Your task to perform on an android device: Show the shopping cart on target. Add "macbook pro 15 inch" to the cart on target, then select checkout. Image 0: 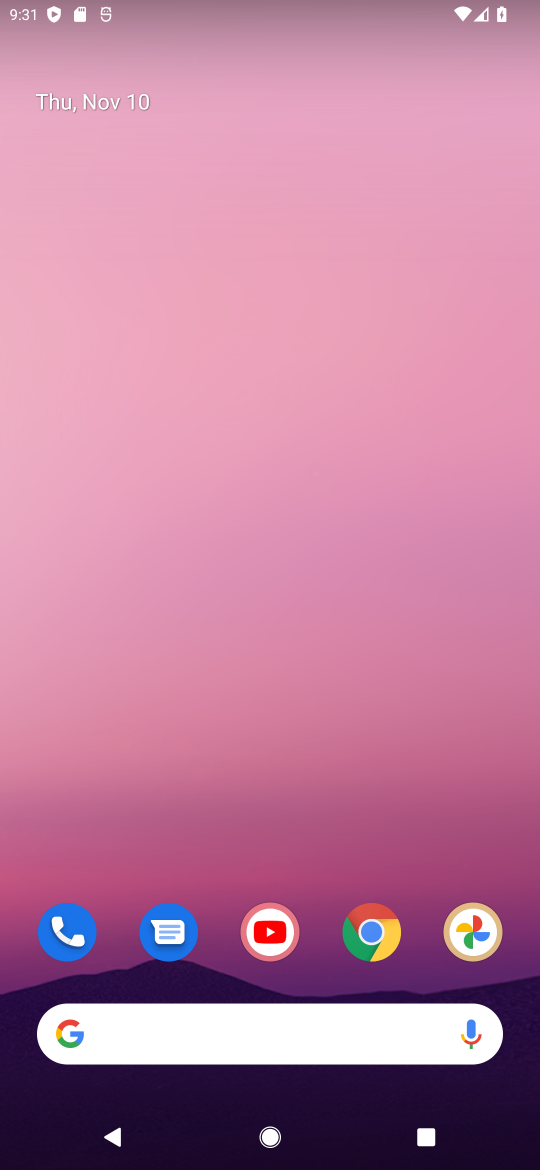
Step 0: click (358, 942)
Your task to perform on an android device: Show the shopping cart on target. Add "macbook pro 15 inch" to the cart on target, then select checkout. Image 1: 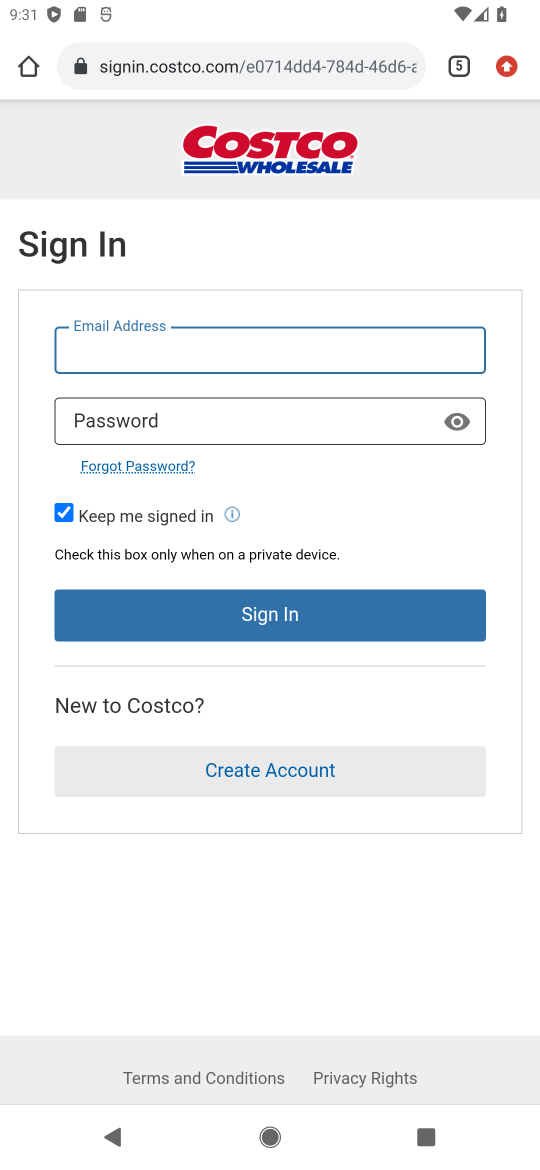
Step 1: click (457, 66)
Your task to perform on an android device: Show the shopping cart on target. Add "macbook pro 15 inch" to the cart on target, then select checkout. Image 2: 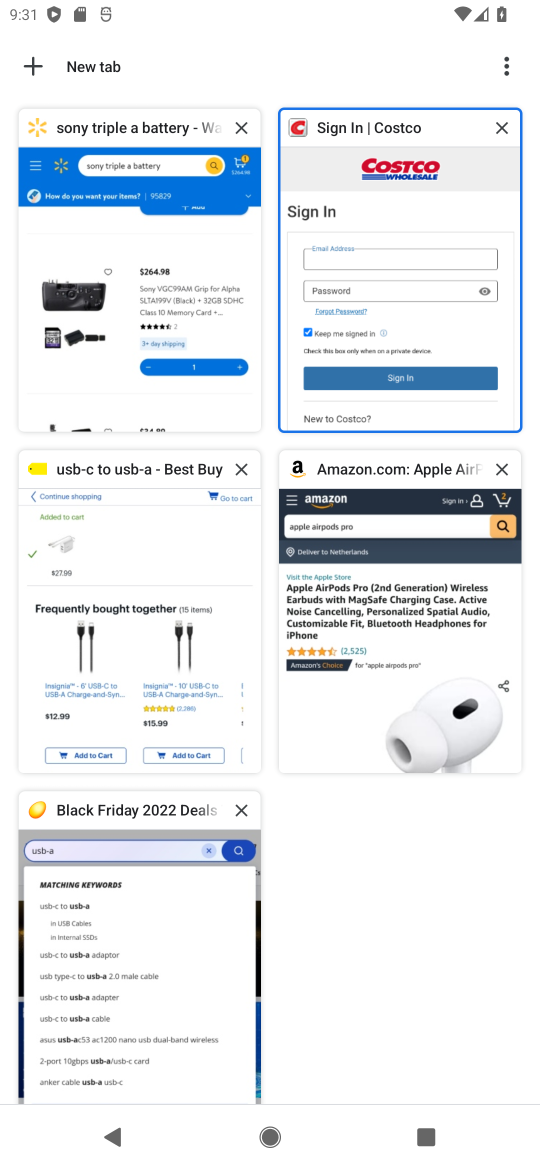
Step 2: click (457, 66)
Your task to perform on an android device: Show the shopping cart on target. Add "macbook pro 15 inch" to the cart on target, then select checkout. Image 3: 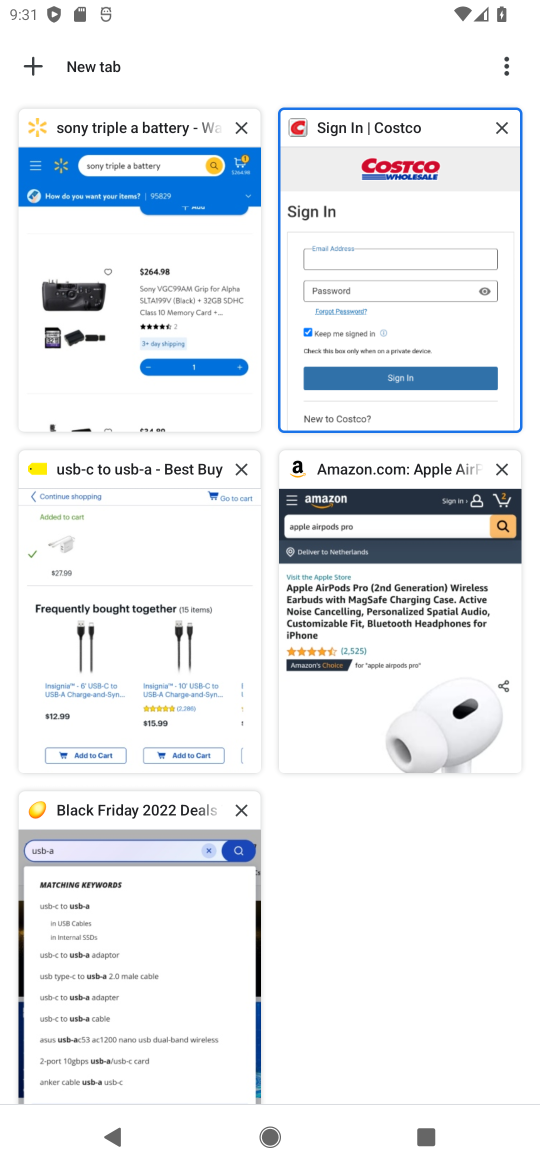
Step 3: click (26, 68)
Your task to perform on an android device: Show the shopping cart on target. Add "macbook pro 15 inch" to the cart on target, then select checkout. Image 4: 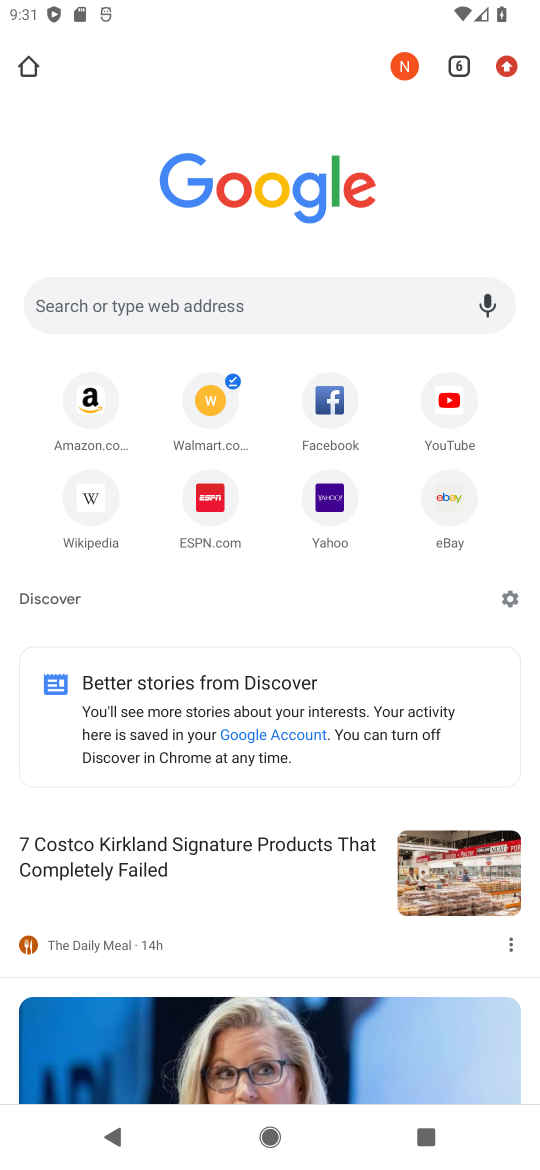
Step 4: click (143, 307)
Your task to perform on an android device: Show the shopping cart on target. Add "macbook pro 15 inch" to the cart on target, then select checkout. Image 5: 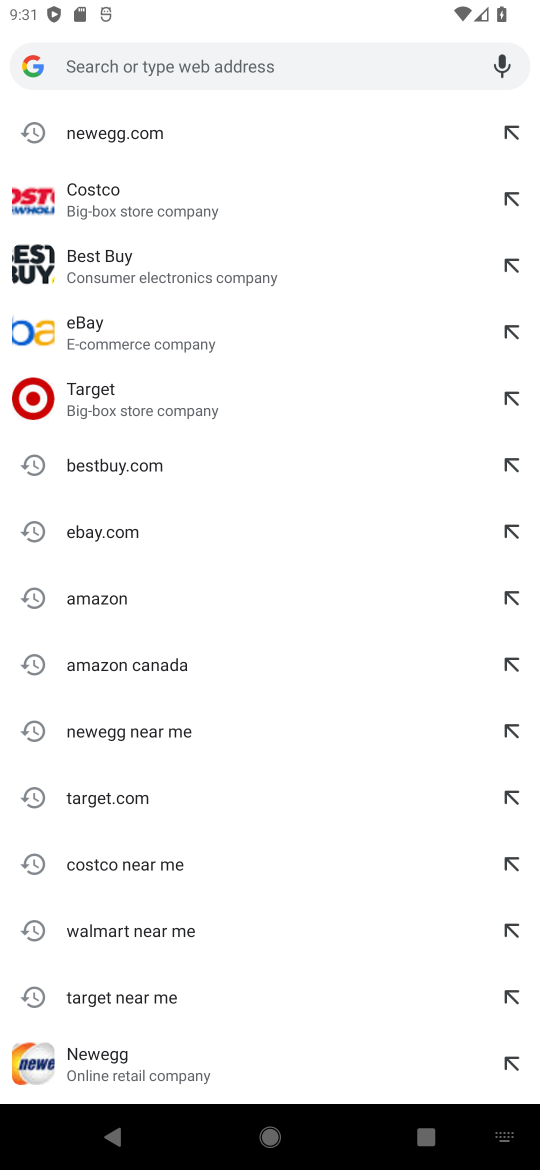
Step 5: click (120, 393)
Your task to perform on an android device: Show the shopping cart on target. Add "macbook pro 15 inch" to the cart on target, then select checkout. Image 6: 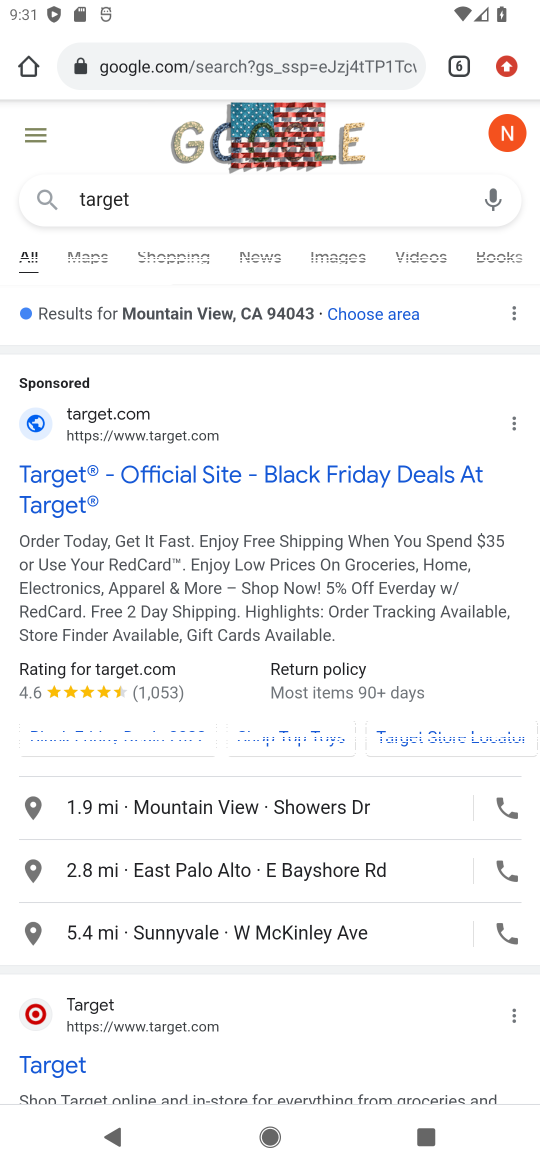
Step 6: drag from (240, 1045) to (319, 704)
Your task to perform on an android device: Show the shopping cart on target. Add "macbook pro 15 inch" to the cart on target, then select checkout. Image 7: 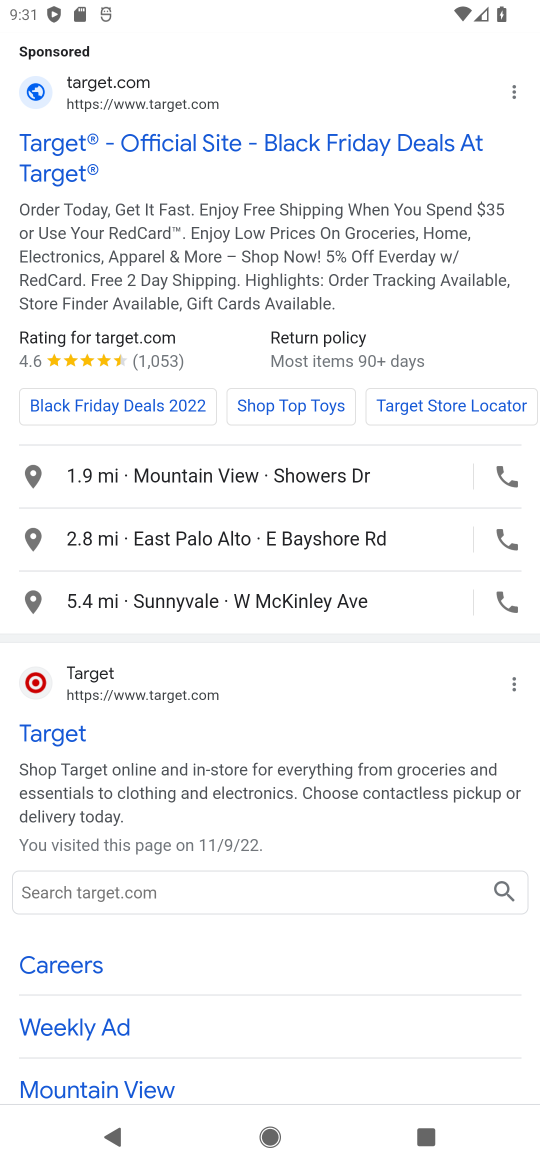
Step 7: click (142, 877)
Your task to perform on an android device: Show the shopping cart on target. Add "macbook pro 15 inch" to the cart on target, then select checkout. Image 8: 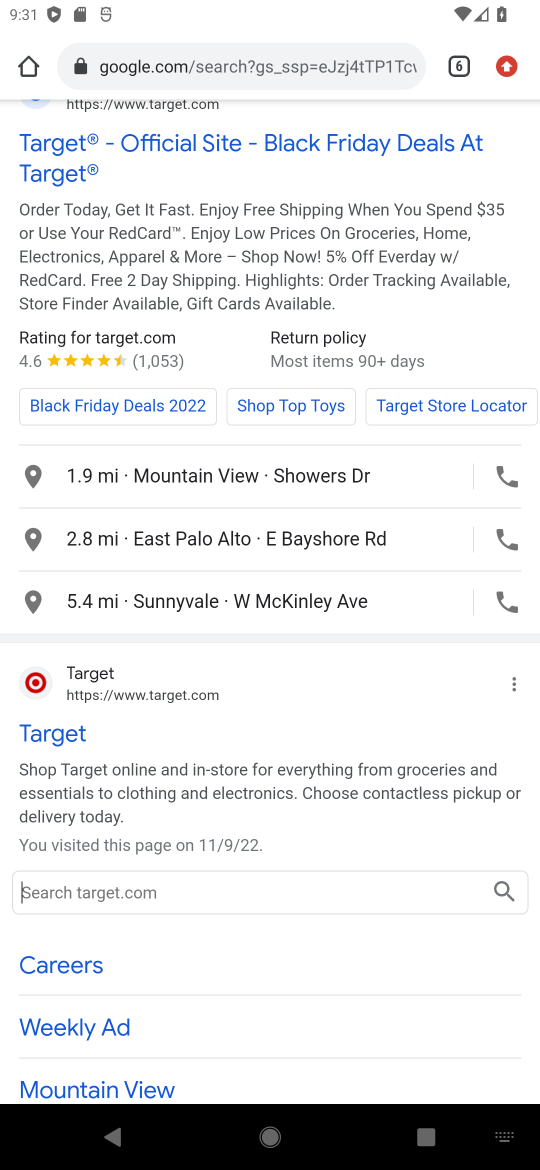
Step 8: type "macbook pro 15 inch"
Your task to perform on an android device: Show the shopping cart on target. Add "macbook pro 15 inch" to the cart on target, then select checkout. Image 9: 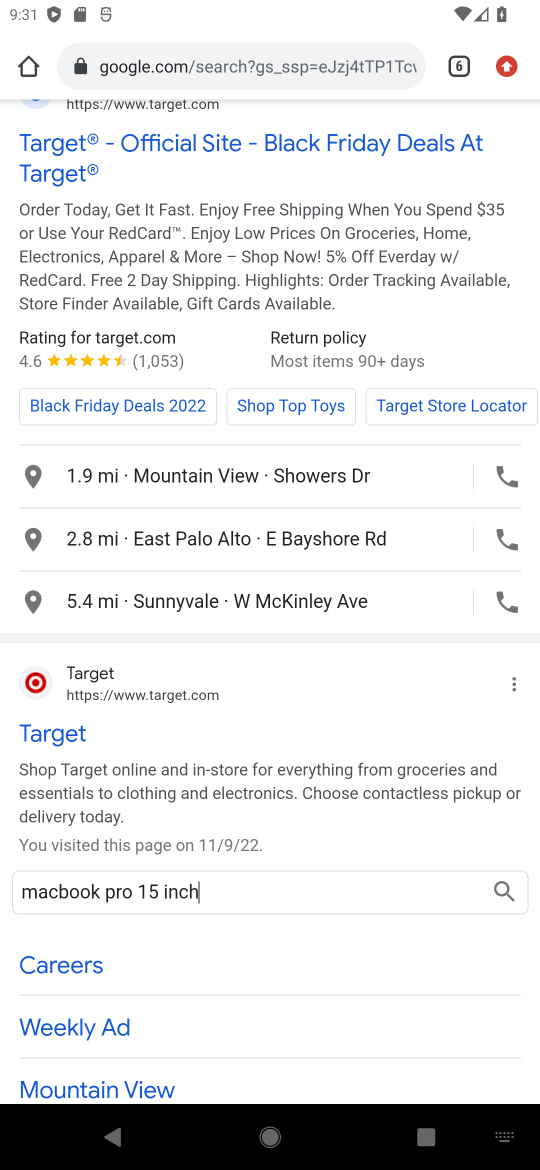
Step 9: click (506, 884)
Your task to perform on an android device: Show the shopping cart on target. Add "macbook pro 15 inch" to the cart on target, then select checkout. Image 10: 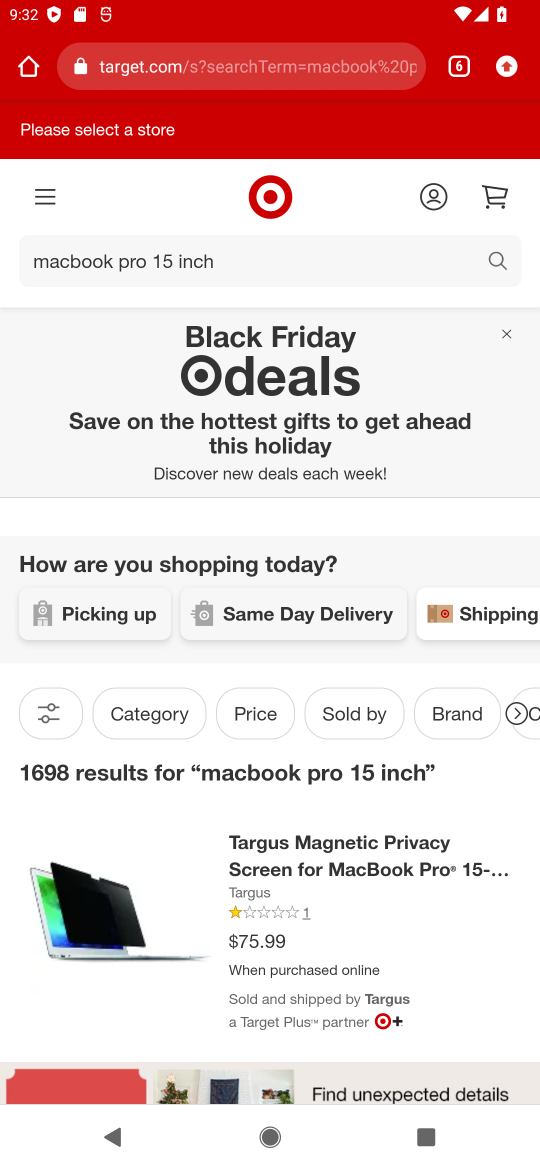
Step 10: drag from (458, 798) to (516, 541)
Your task to perform on an android device: Show the shopping cart on target. Add "macbook pro 15 inch" to the cart on target, then select checkout. Image 11: 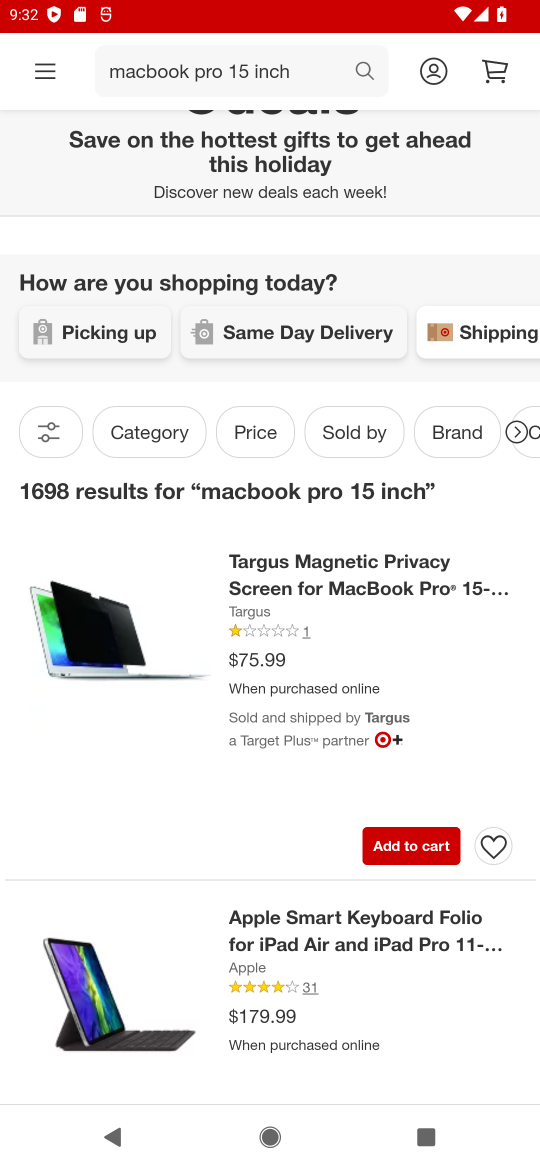
Step 11: click (404, 840)
Your task to perform on an android device: Show the shopping cart on target. Add "macbook pro 15 inch" to the cart on target, then select checkout. Image 12: 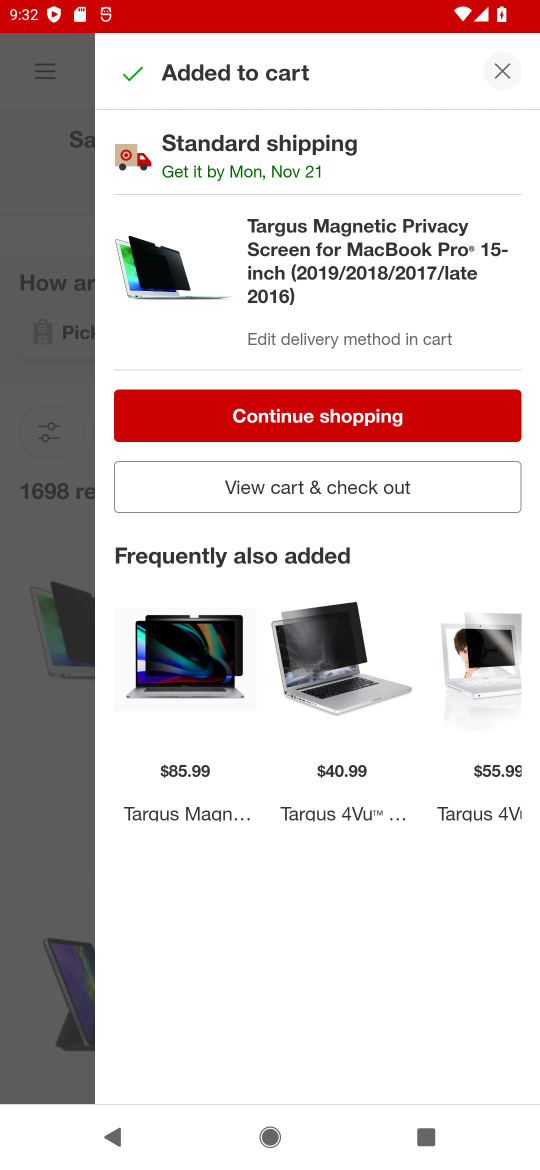
Step 12: click (340, 494)
Your task to perform on an android device: Show the shopping cart on target. Add "macbook pro 15 inch" to the cart on target, then select checkout. Image 13: 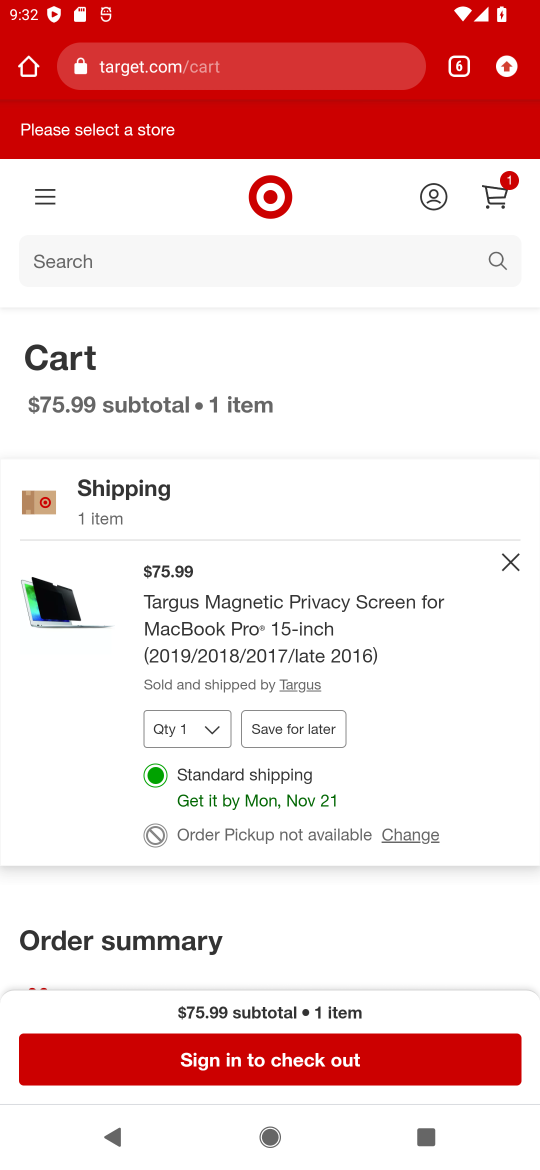
Step 13: click (276, 1057)
Your task to perform on an android device: Show the shopping cart on target. Add "macbook pro 15 inch" to the cart on target, then select checkout. Image 14: 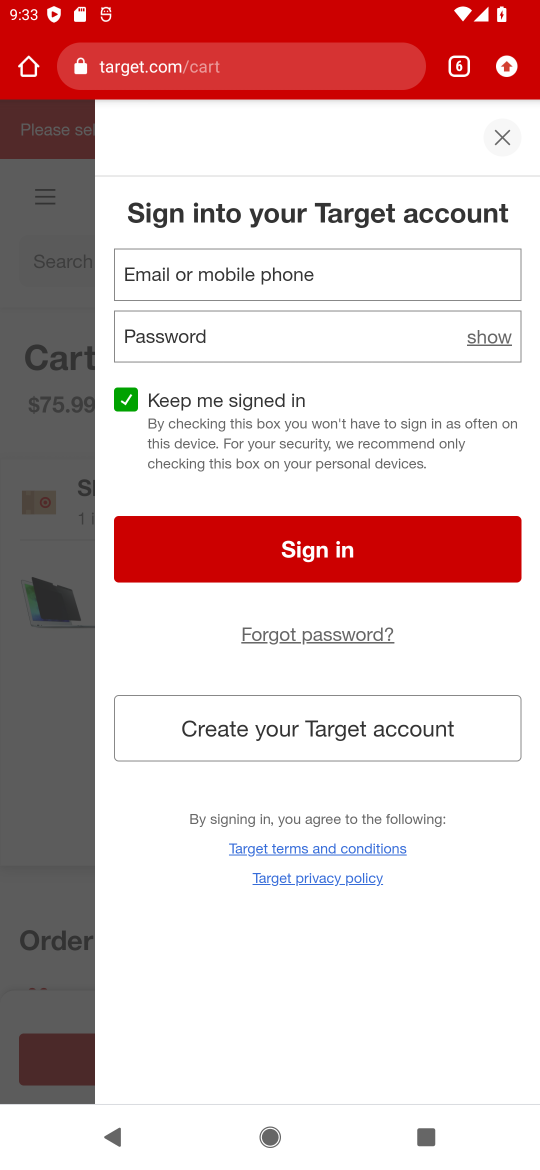
Step 14: click (463, 74)
Your task to perform on an android device: Show the shopping cart on target. Add "macbook pro 15 inch" to the cart on target, then select checkout. Image 15: 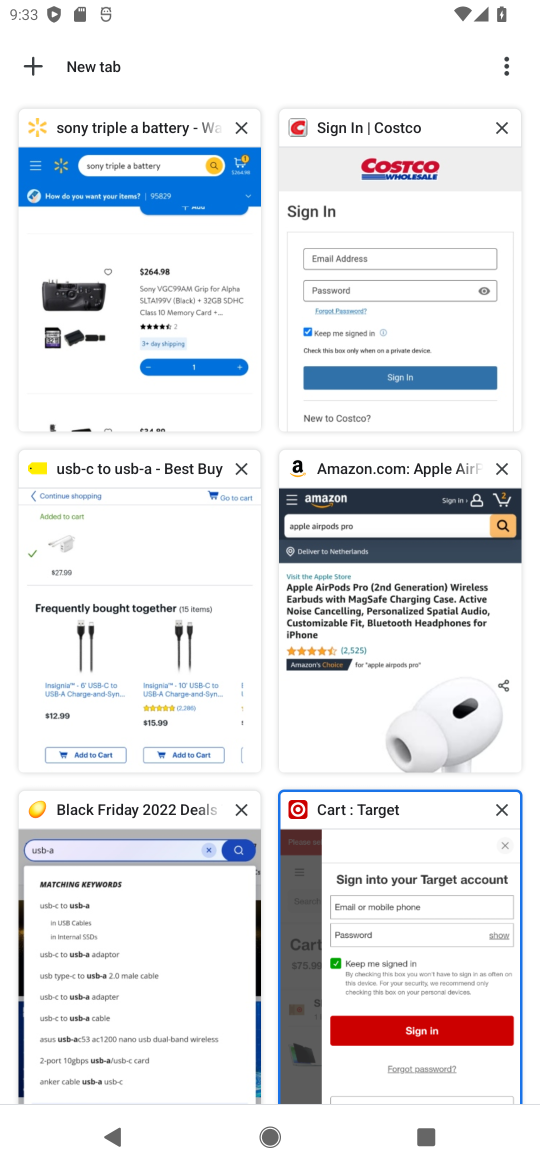
Step 15: task complete